Your task to perform on an android device: turn notification dots off Image 0: 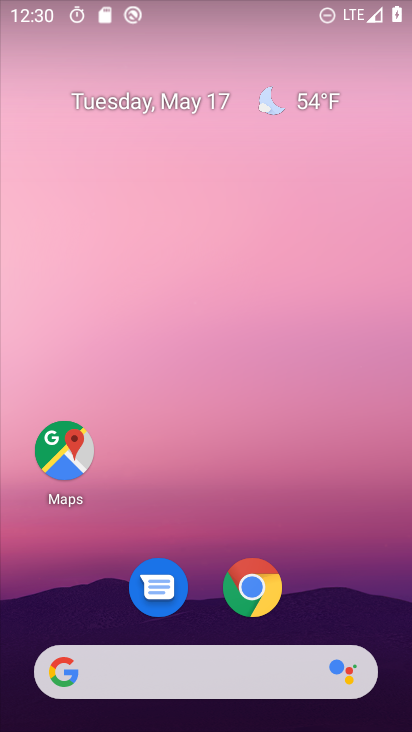
Step 0: drag from (224, 622) to (230, 129)
Your task to perform on an android device: turn notification dots off Image 1: 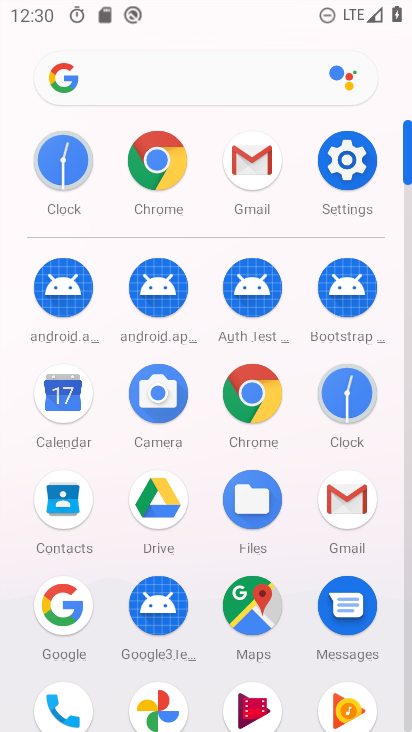
Step 1: click (342, 160)
Your task to perform on an android device: turn notification dots off Image 2: 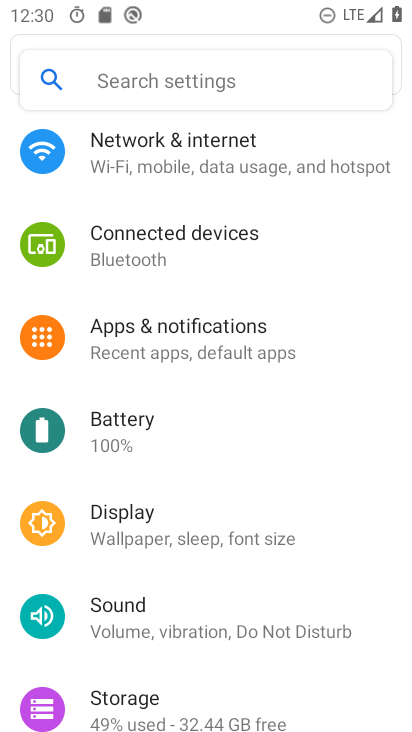
Step 2: click (188, 337)
Your task to perform on an android device: turn notification dots off Image 3: 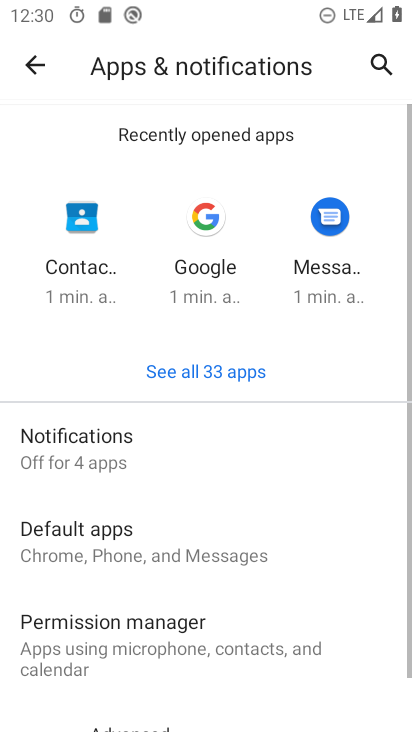
Step 3: drag from (194, 518) to (272, 89)
Your task to perform on an android device: turn notification dots off Image 4: 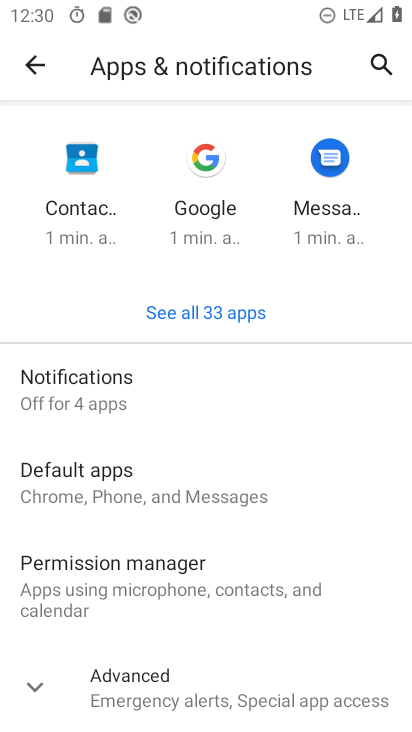
Step 4: click (119, 397)
Your task to perform on an android device: turn notification dots off Image 5: 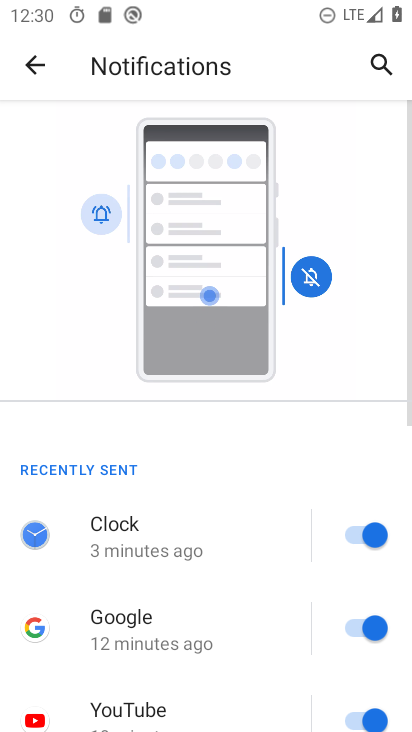
Step 5: drag from (275, 568) to (349, 184)
Your task to perform on an android device: turn notification dots off Image 6: 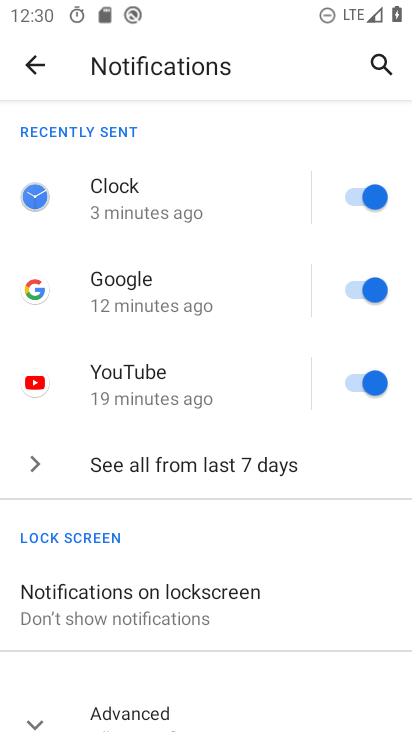
Step 6: drag from (220, 592) to (285, 235)
Your task to perform on an android device: turn notification dots off Image 7: 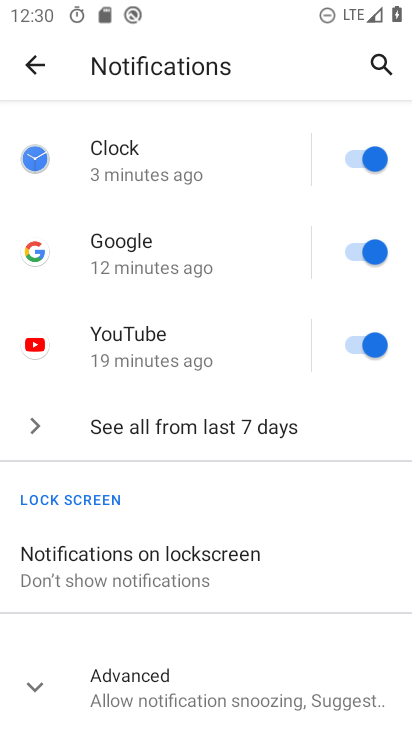
Step 7: drag from (178, 610) to (244, 117)
Your task to perform on an android device: turn notification dots off Image 8: 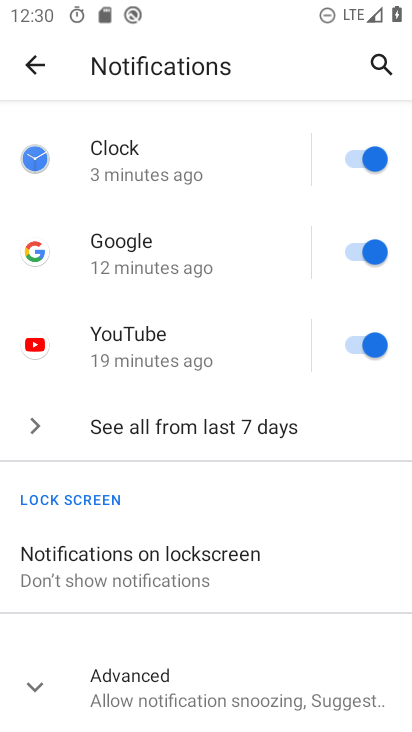
Step 8: click (204, 671)
Your task to perform on an android device: turn notification dots off Image 9: 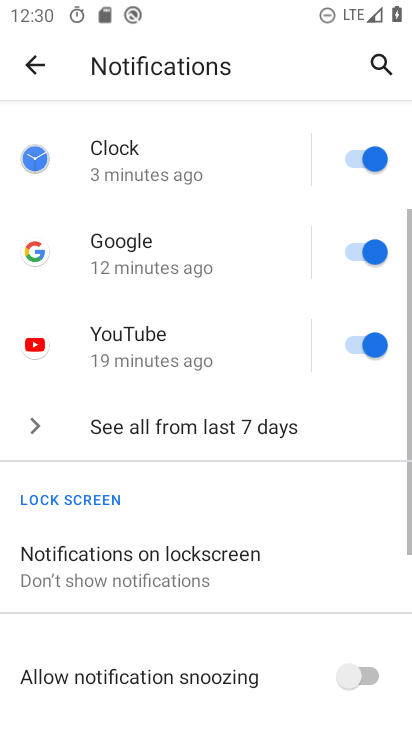
Step 9: drag from (194, 669) to (255, 117)
Your task to perform on an android device: turn notification dots off Image 10: 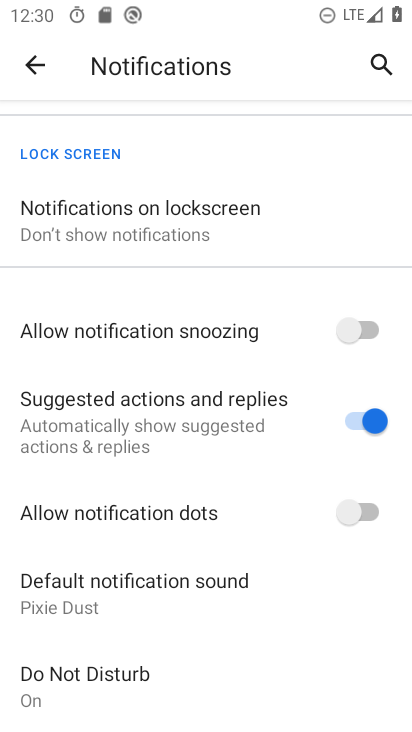
Step 10: click (327, 504)
Your task to perform on an android device: turn notification dots off Image 11: 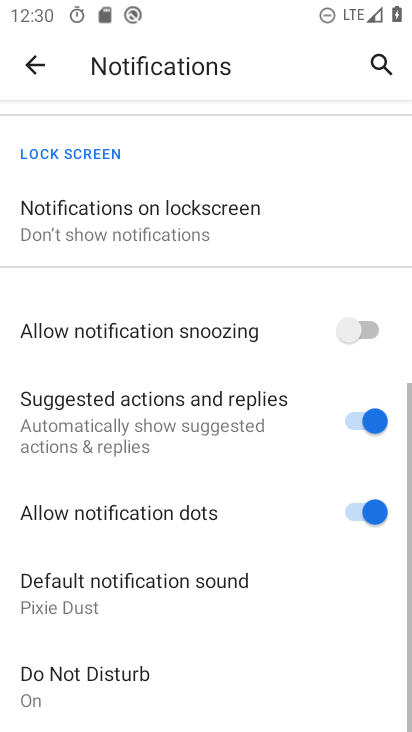
Step 11: drag from (298, 625) to (336, 369)
Your task to perform on an android device: turn notification dots off Image 12: 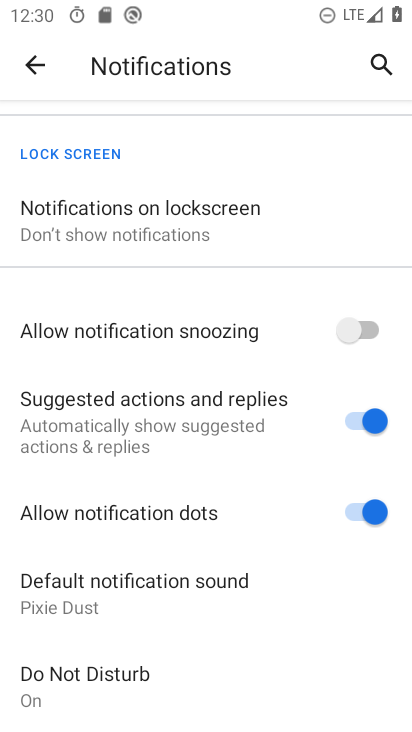
Step 12: drag from (224, 649) to (343, 171)
Your task to perform on an android device: turn notification dots off Image 13: 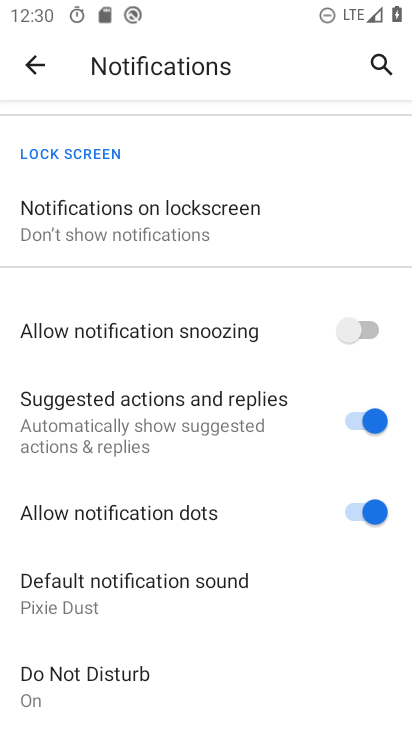
Step 13: click (357, 488)
Your task to perform on an android device: turn notification dots off Image 14: 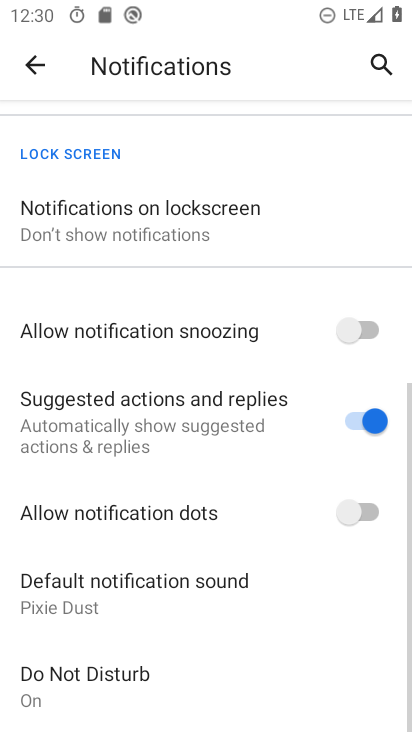
Step 14: task complete